Your task to perform on an android device: Clear all items from cart on bestbuy. Search for asus zenbook on bestbuy, select the first entry, and add it to the cart. Image 0: 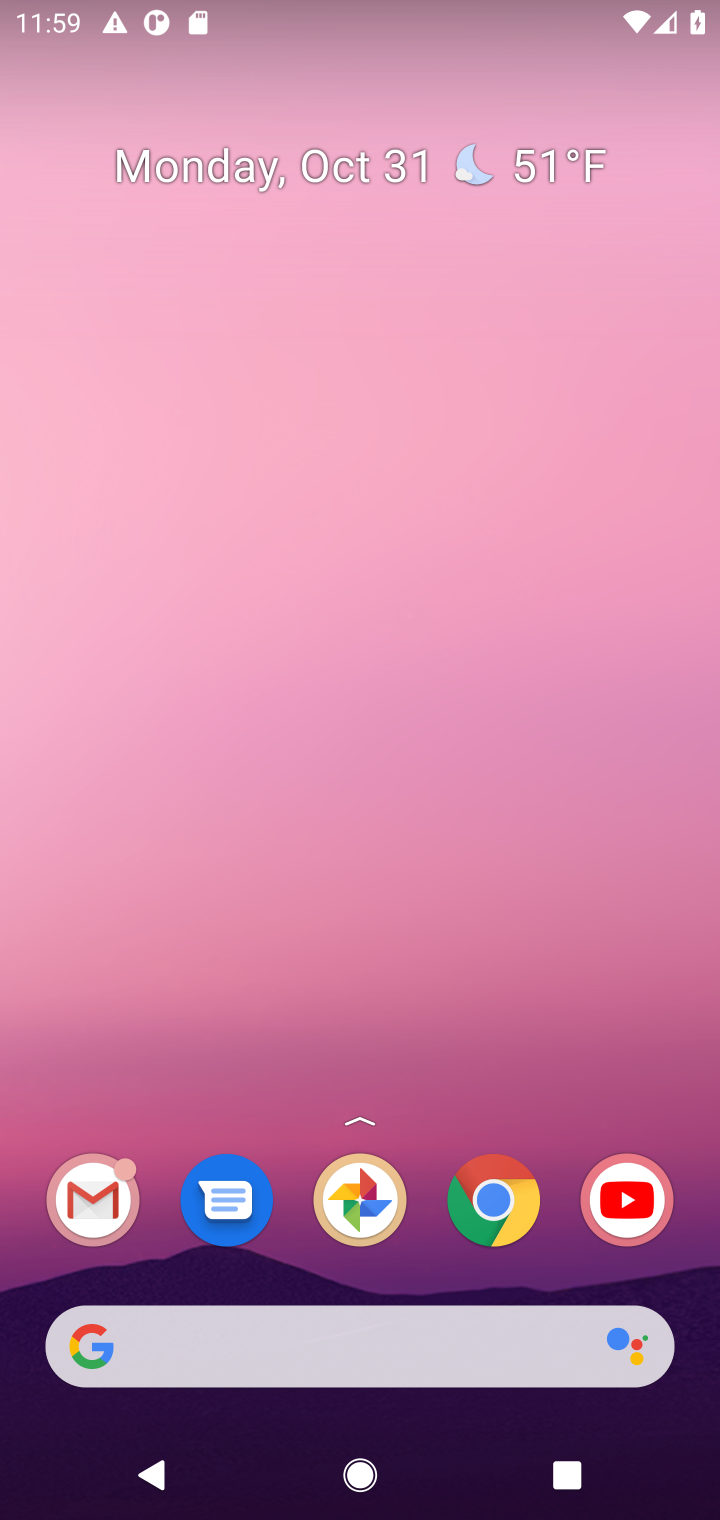
Step 0: click (488, 1218)
Your task to perform on an android device: Clear all items from cart on bestbuy. Search for asus zenbook on bestbuy, select the first entry, and add it to the cart. Image 1: 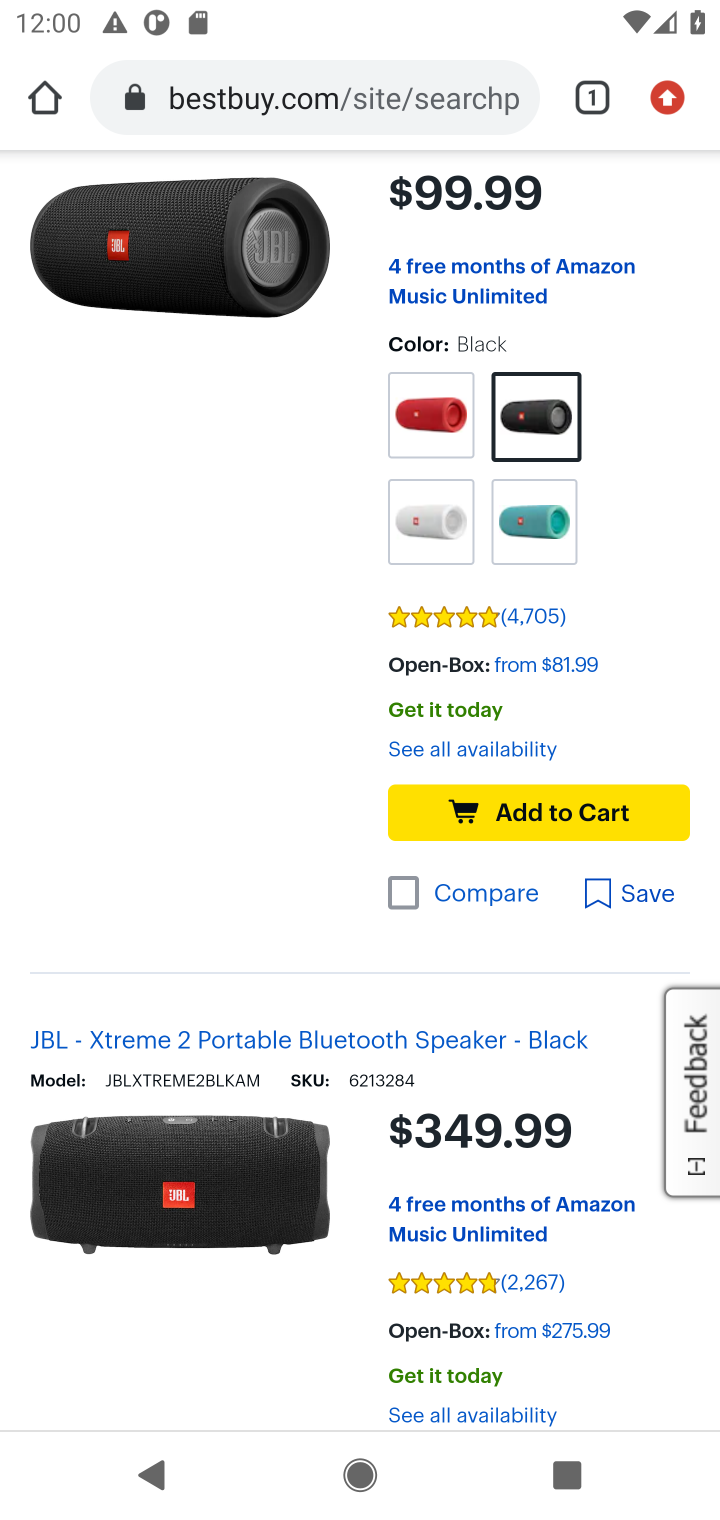
Step 1: click (312, 98)
Your task to perform on an android device: Clear all items from cart on bestbuy. Search for asus zenbook on bestbuy, select the first entry, and add it to the cart. Image 2: 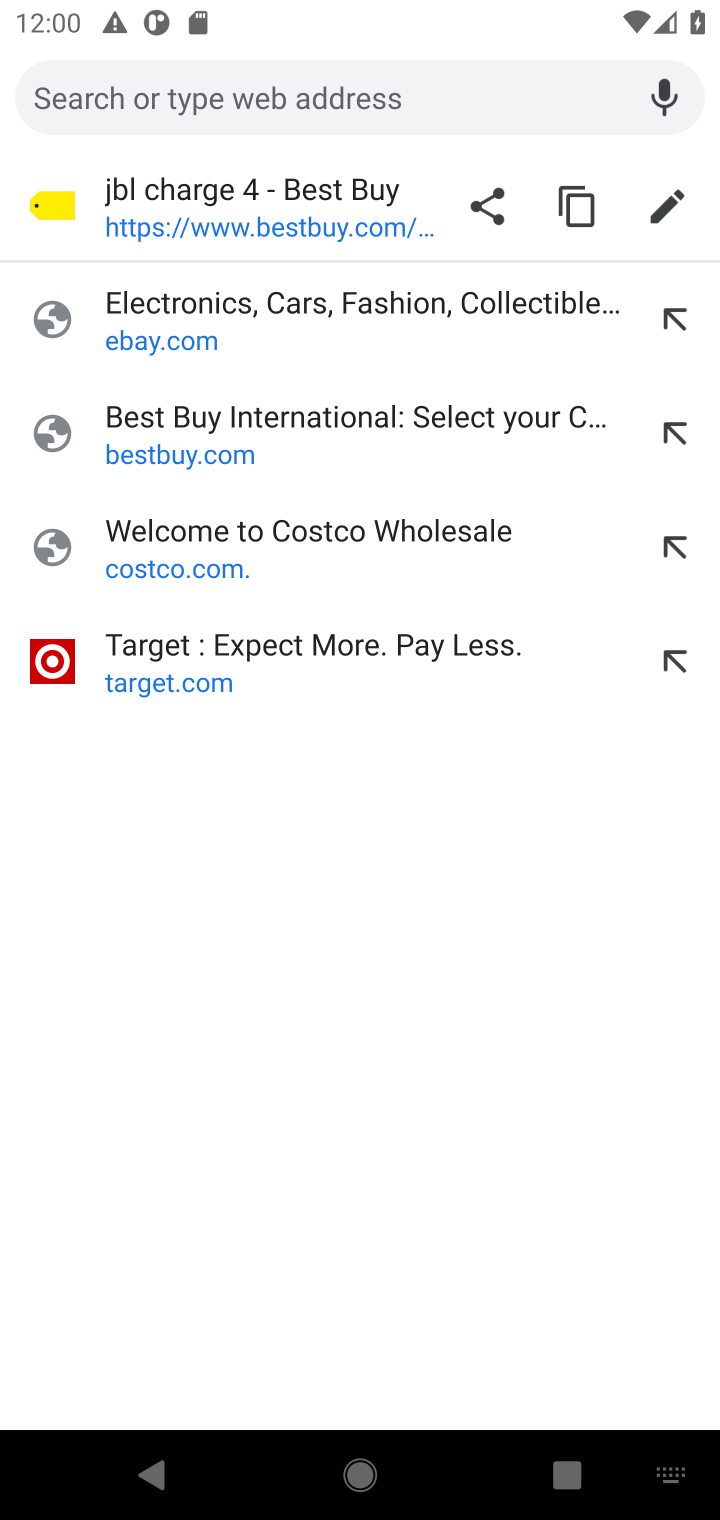
Step 2: click (157, 456)
Your task to perform on an android device: Clear all items from cart on bestbuy. Search for asus zenbook on bestbuy, select the first entry, and add it to the cart. Image 3: 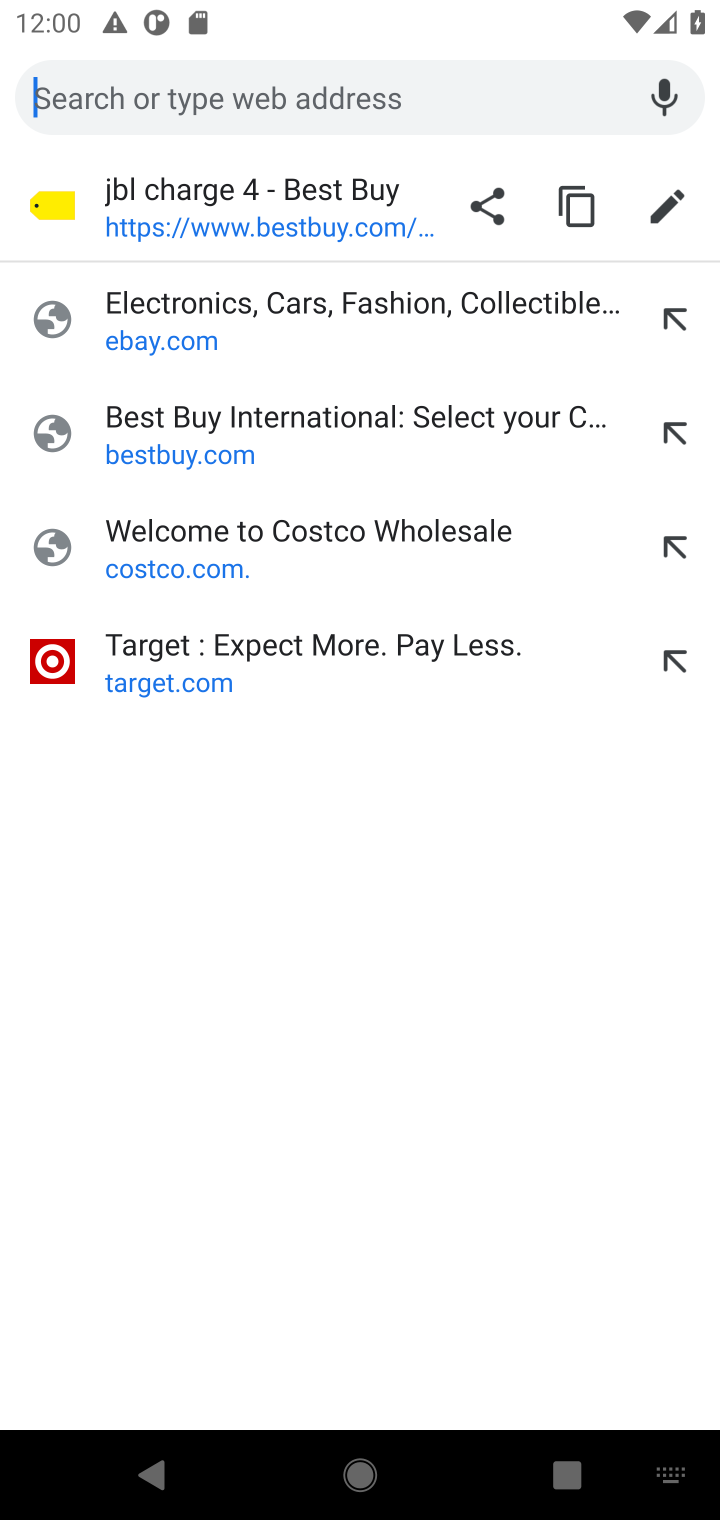
Step 3: click (143, 425)
Your task to perform on an android device: Clear all items from cart on bestbuy. Search for asus zenbook on bestbuy, select the first entry, and add it to the cart. Image 4: 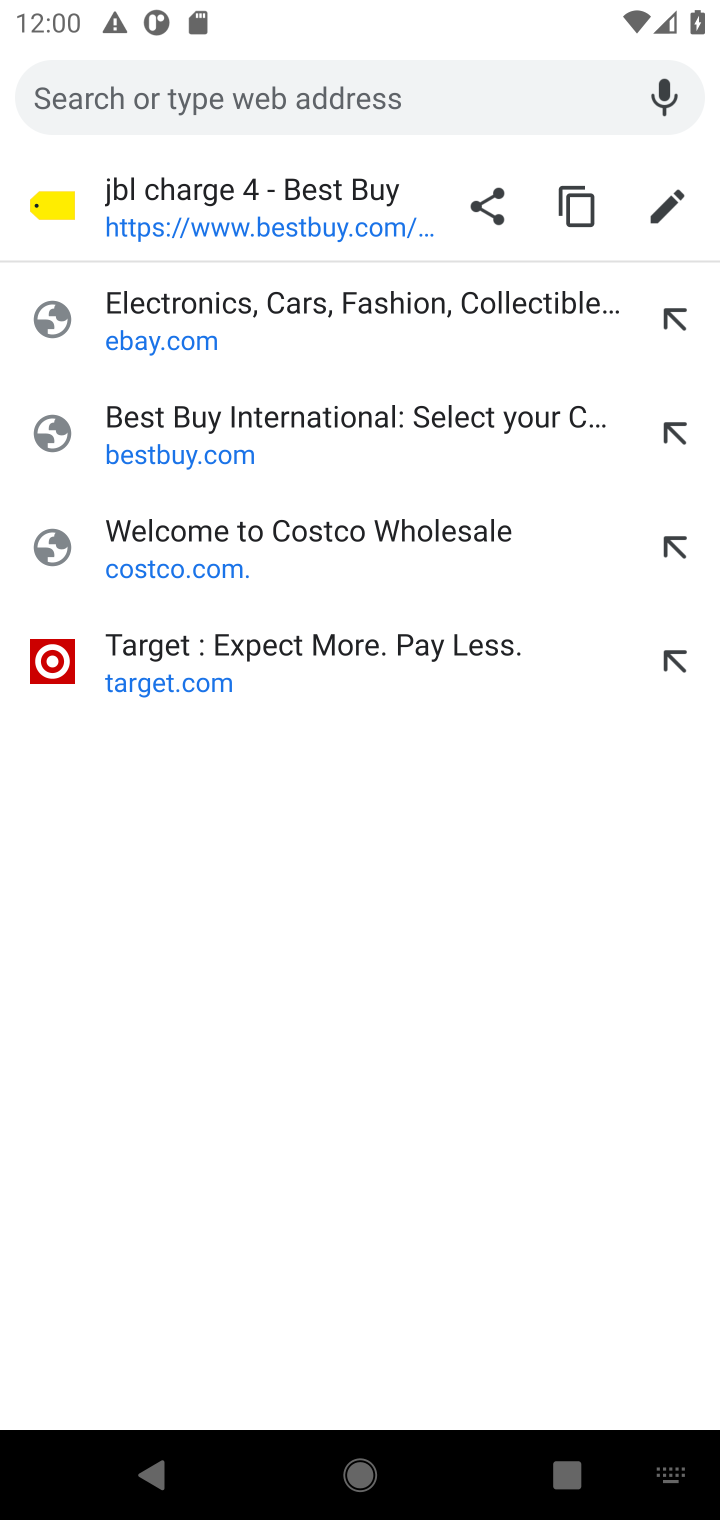
Step 4: click (143, 423)
Your task to perform on an android device: Clear all items from cart on bestbuy. Search for asus zenbook on bestbuy, select the first entry, and add it to the cart. Image 5: 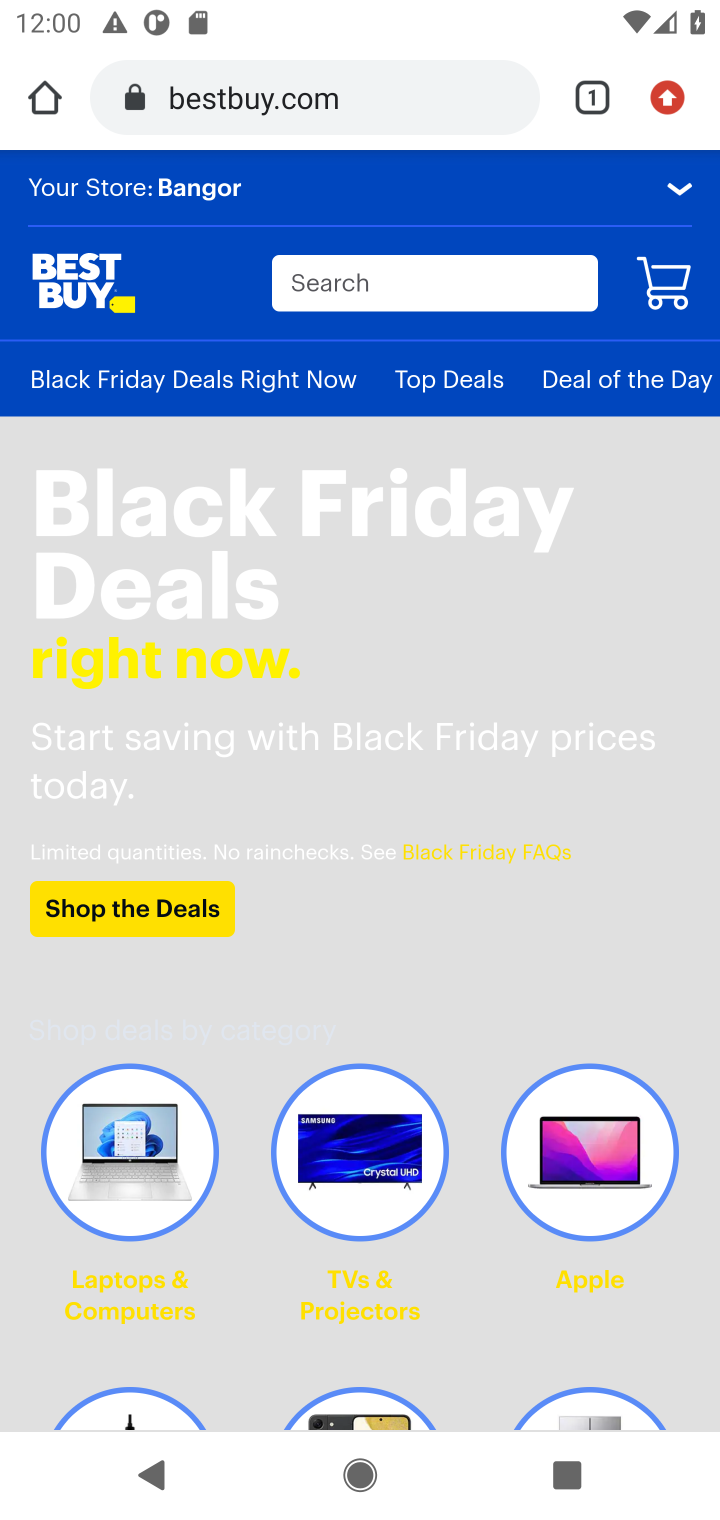
Step 5: click (646, 293)
Your task to perform on an android device: Clear all items from cart on bestbuy. Search for asus zenbook on bestbuy, select the first entry, and add it to the cart. Image 6: 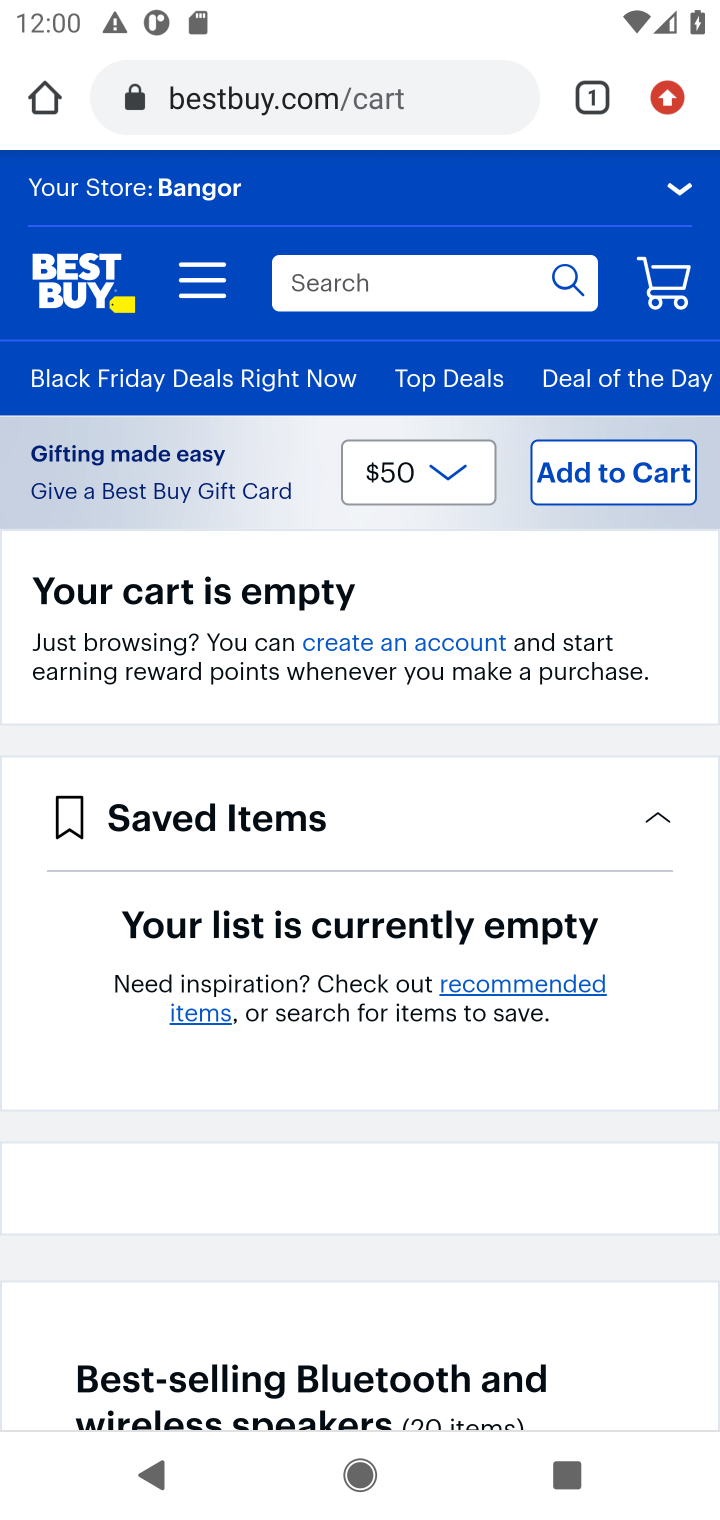
Step 6: click (373, 279)
Your task to perform on an android device: Clear all items from cart on bestbuy. Search for asus zenbook on bestbuy, select the first entry, and add it to the cart. Image 7: 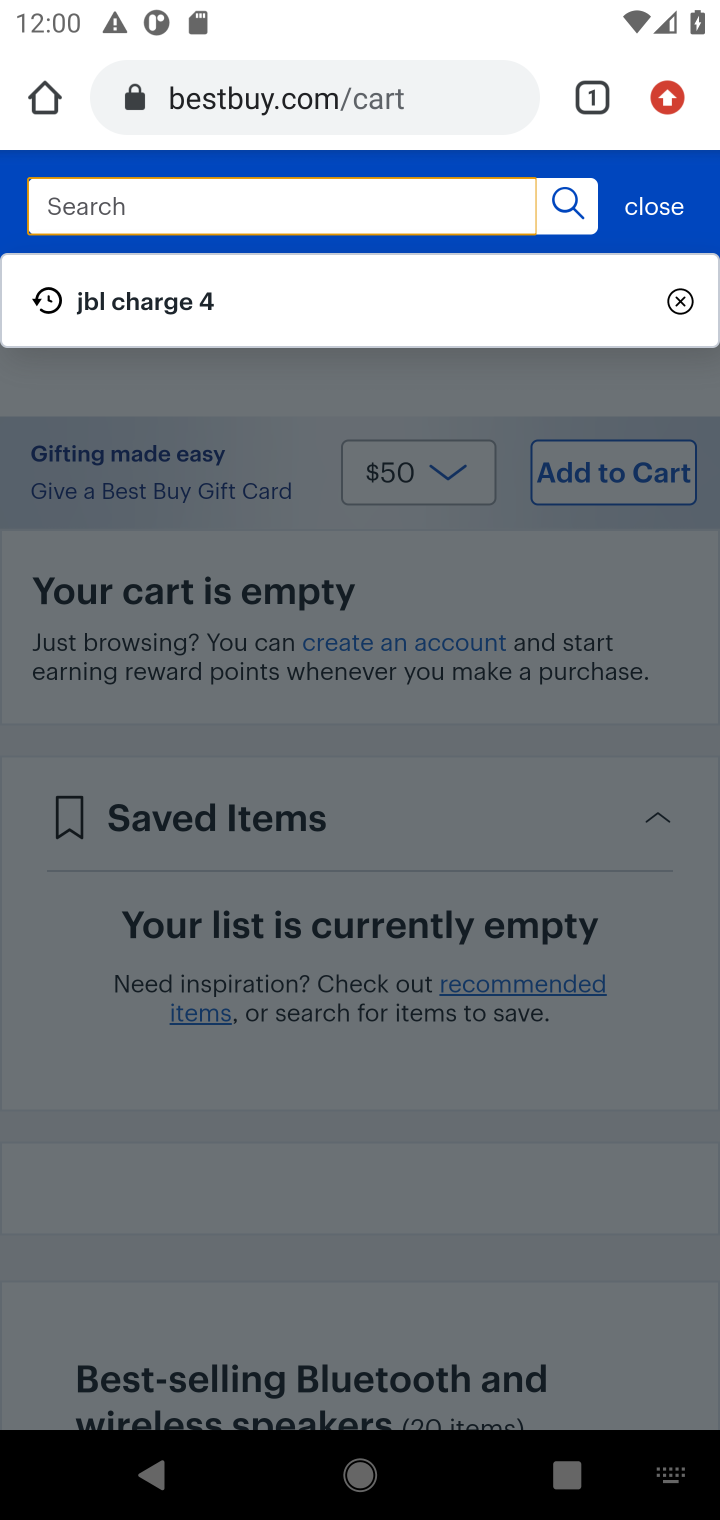
Step 7: type "asus zenbook"
Your task to perform on an android device: Clear all items from cart on bestbuy. Search for asus zenbook on bestbuy, select the first entry, and add it to the cart. Image 8: 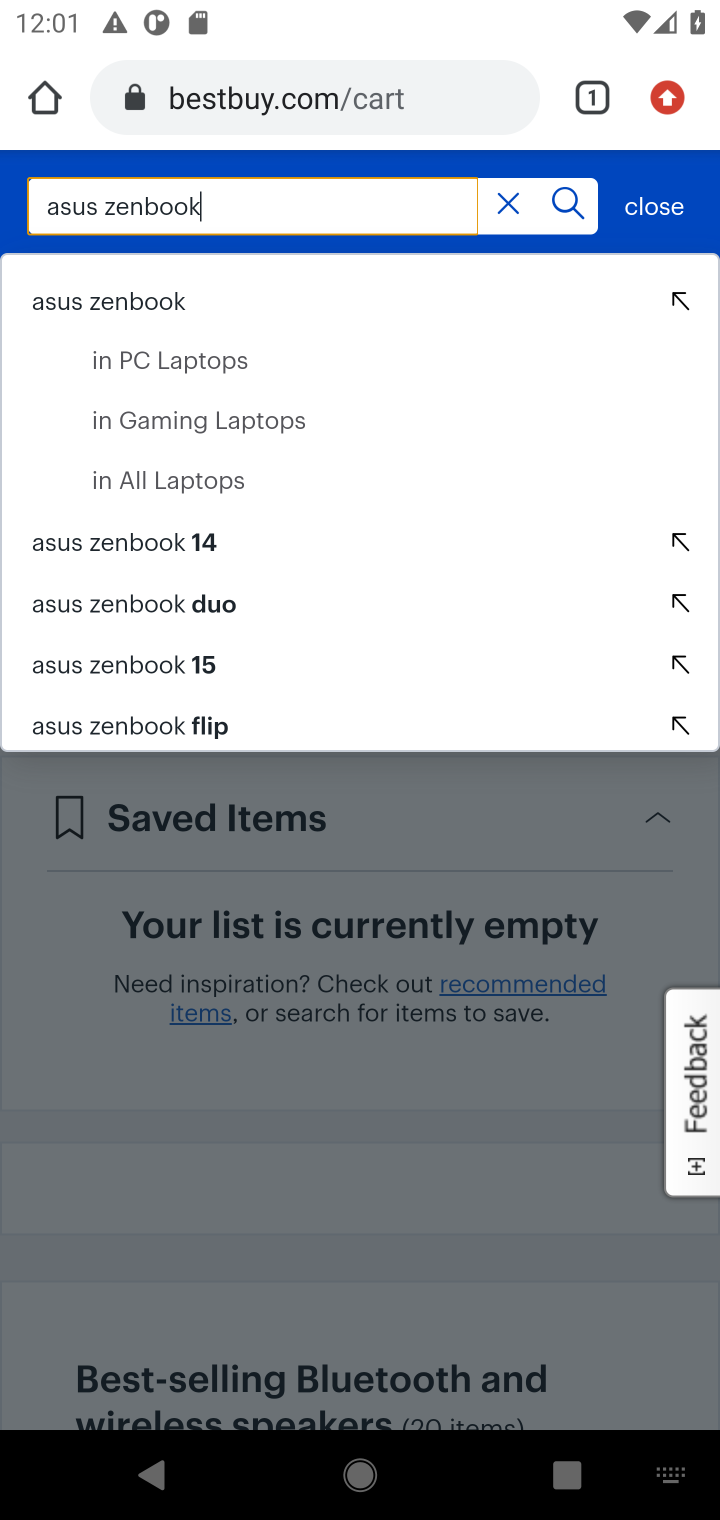
Step 8: click (54, 315)
Your task to perform on an android device: Clear all items from cart on bestbuy. Search for asus zenbook on bestbuy, select the first entry, and add it to the cart. Image 9: 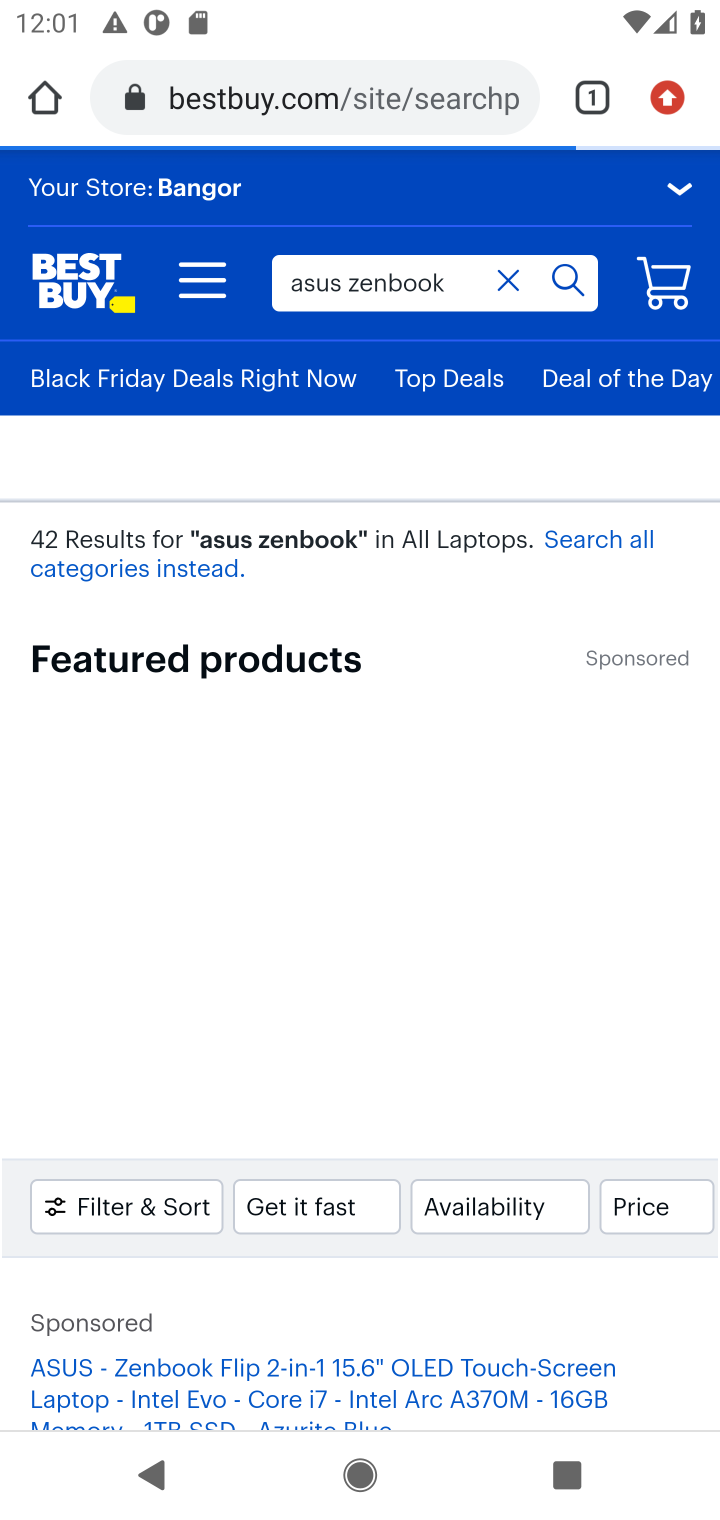
Step 9: drag from (277, 1084) to (277, 572)
Your task to perform on an android device: Clear all items from cart on bestbuy. Search for asus zenbook on bestbuy, select the first entry, and add it to the cart. Image 10: 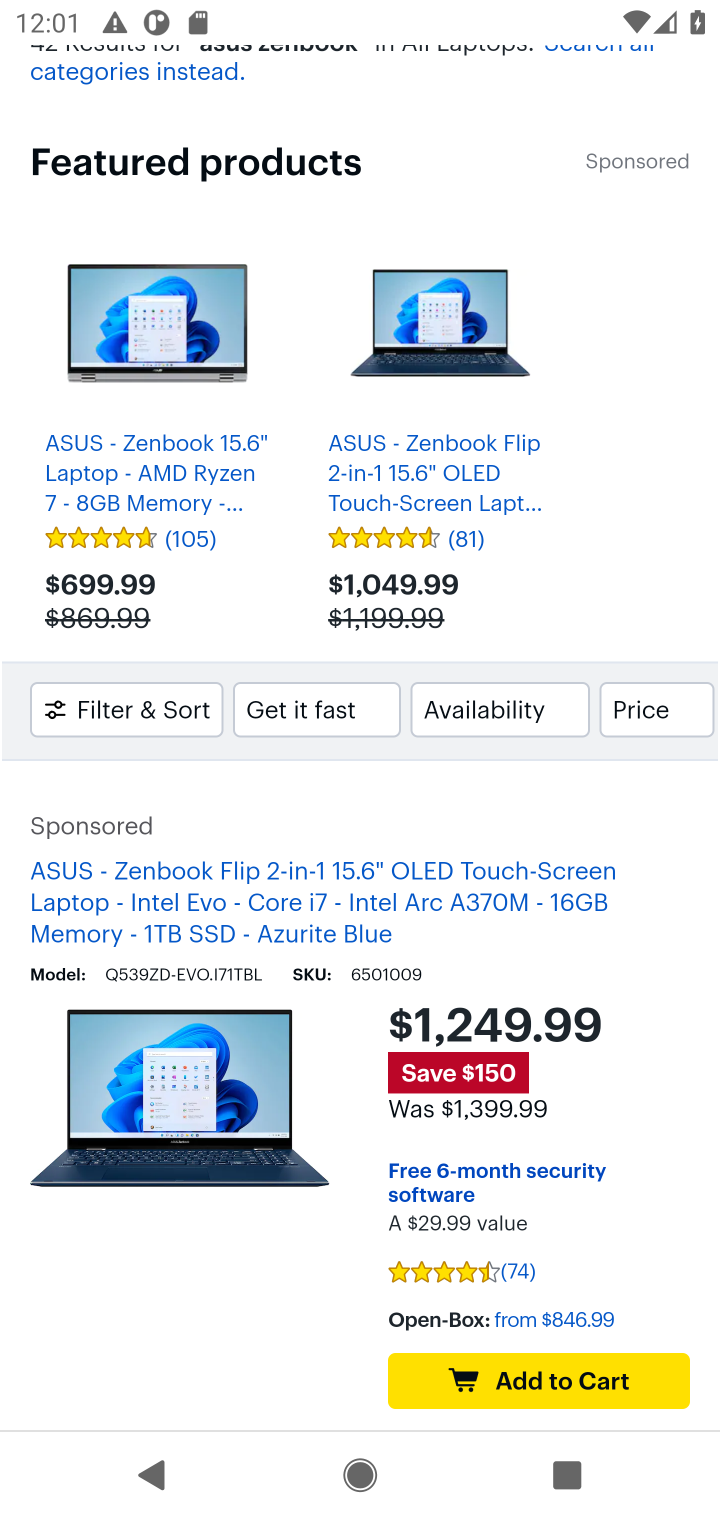
Step 10: drag from (287, 1234) to (293, 1002)
Your task to perform on an android device: Clear all items from cart on bestbuy. Search for asus zenbook on bestbuy, select the first entry, and add it to the cart. Image 11: 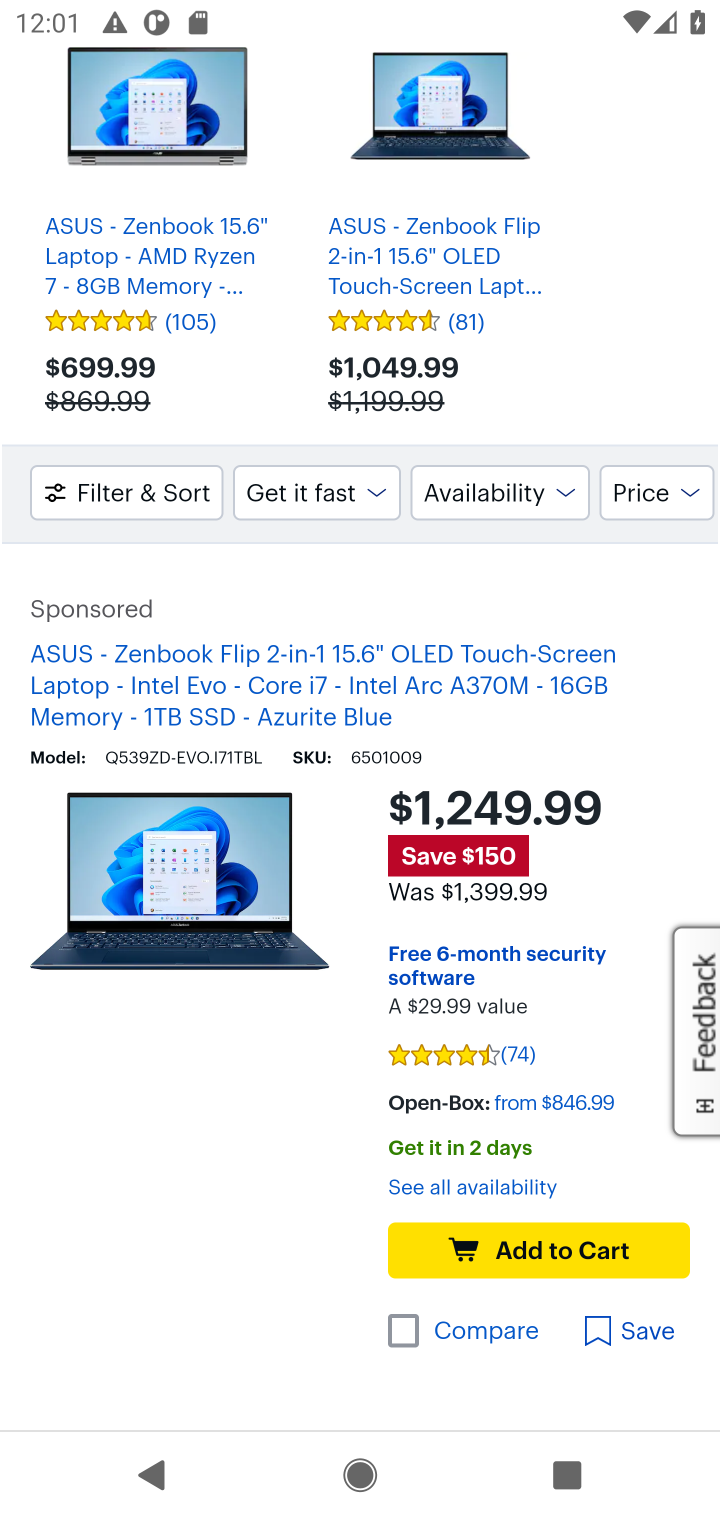
Step 11: click (193, 966)
Your task to perform on an android device: Clear all items from cart on bestbuy. Search for asus zenbook on bestbuy, select the first entry, and add it to the cart. Image 12: 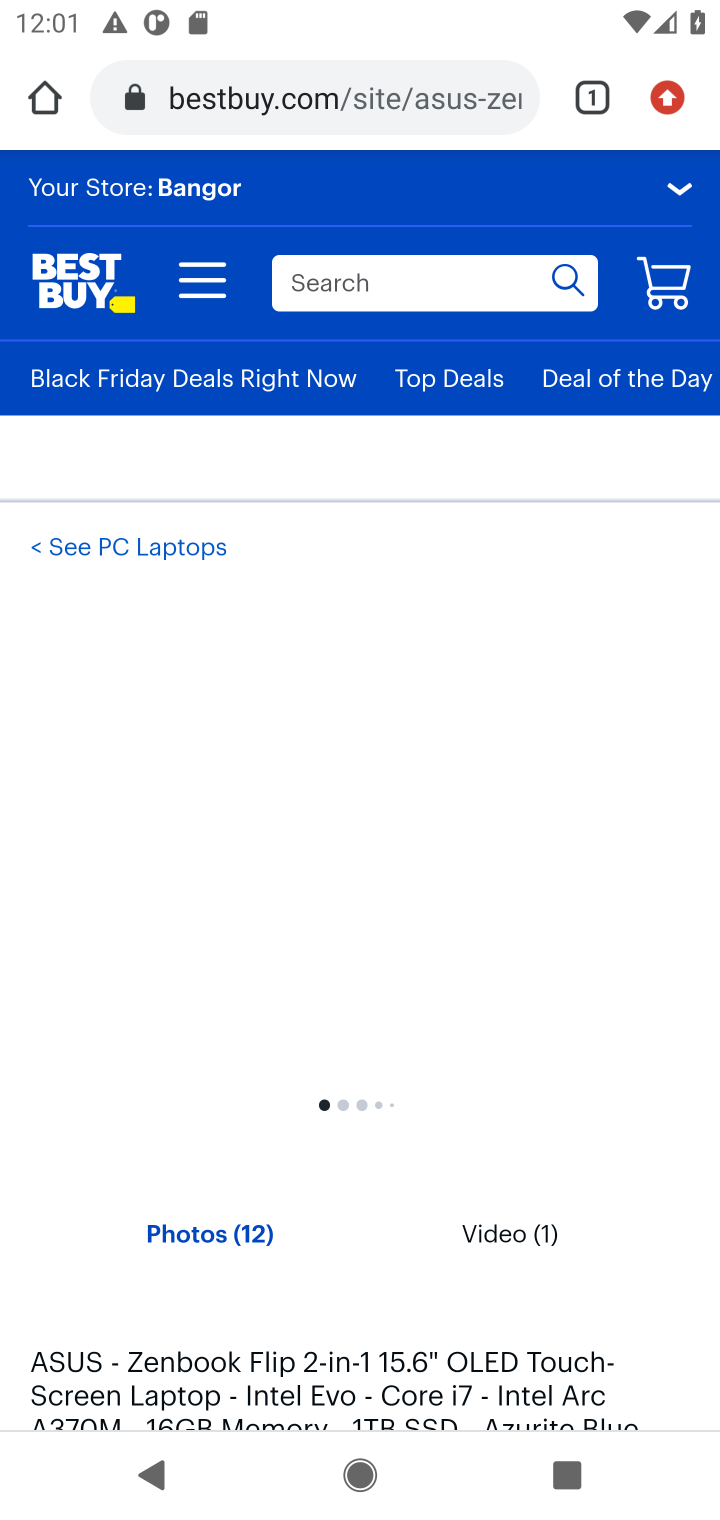
Step 12: drag from (315, 1246) to (378, 510)
Your task to perform on an android device: Clear all items from cart on bestbuy. Search for asus zenbook on bestbuy, select the first entry, and add it to the cart. Image 13: 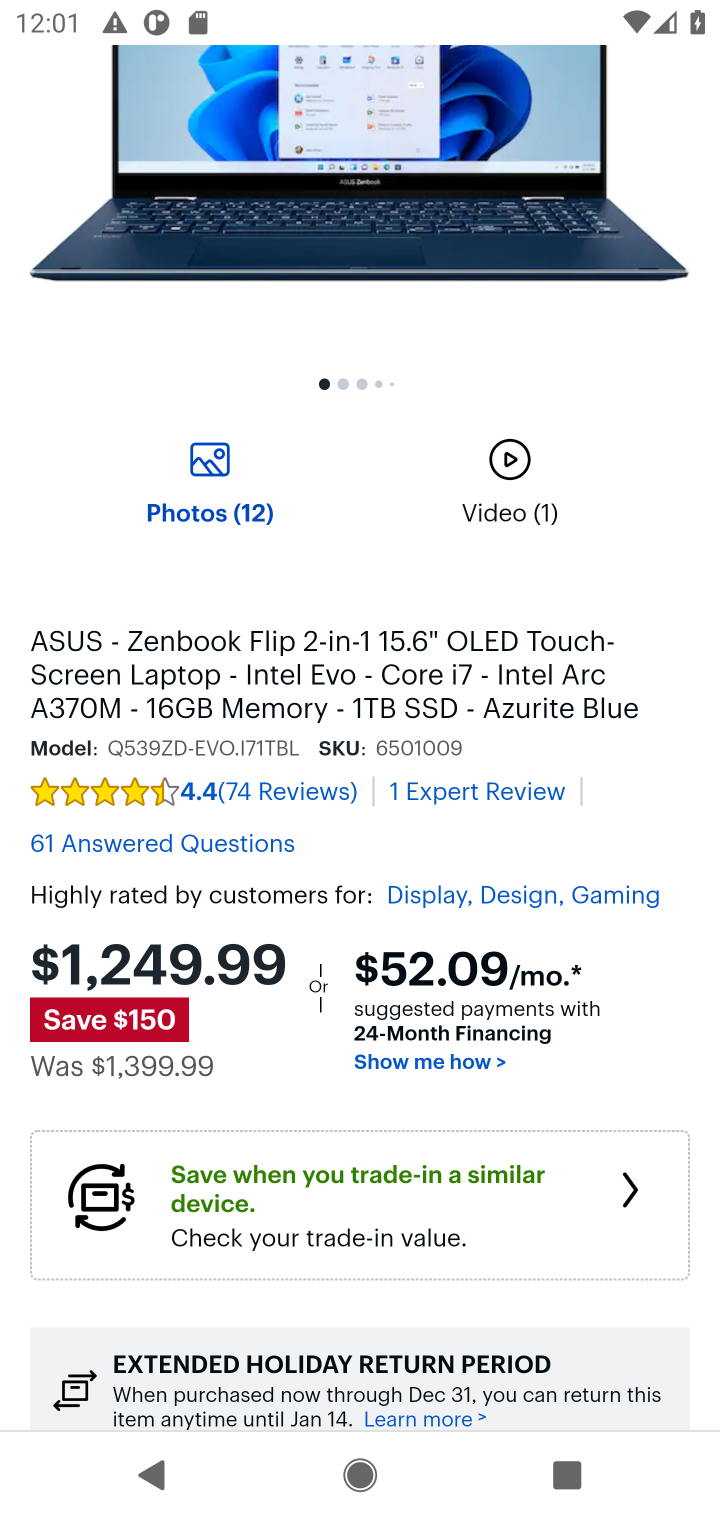
Step 13: drag from (352, 1069) to (370, 594)
Your task to perform on an android device: Clear all items from cart on bestbuy. Search for asus zenbook on bestbuy, select the first entry, and add it to the cart. Image 14: 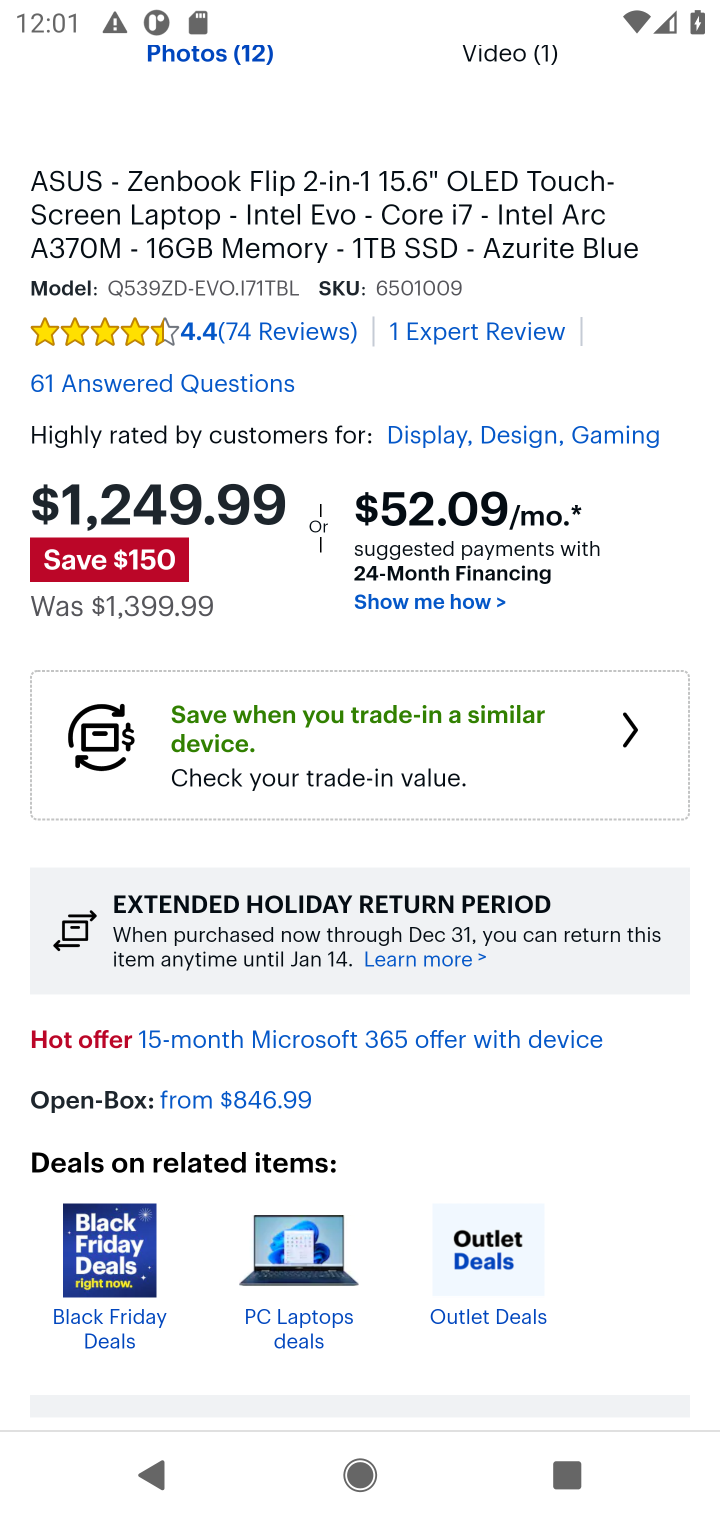
Step 14: drag from (345, 975) to (328, 469)
Your task to perform on an android device: Clear all items from cart on bestbuy. Search for asus zenbook on bestbuy, select the first entry, and add it to the cart. Image 15: 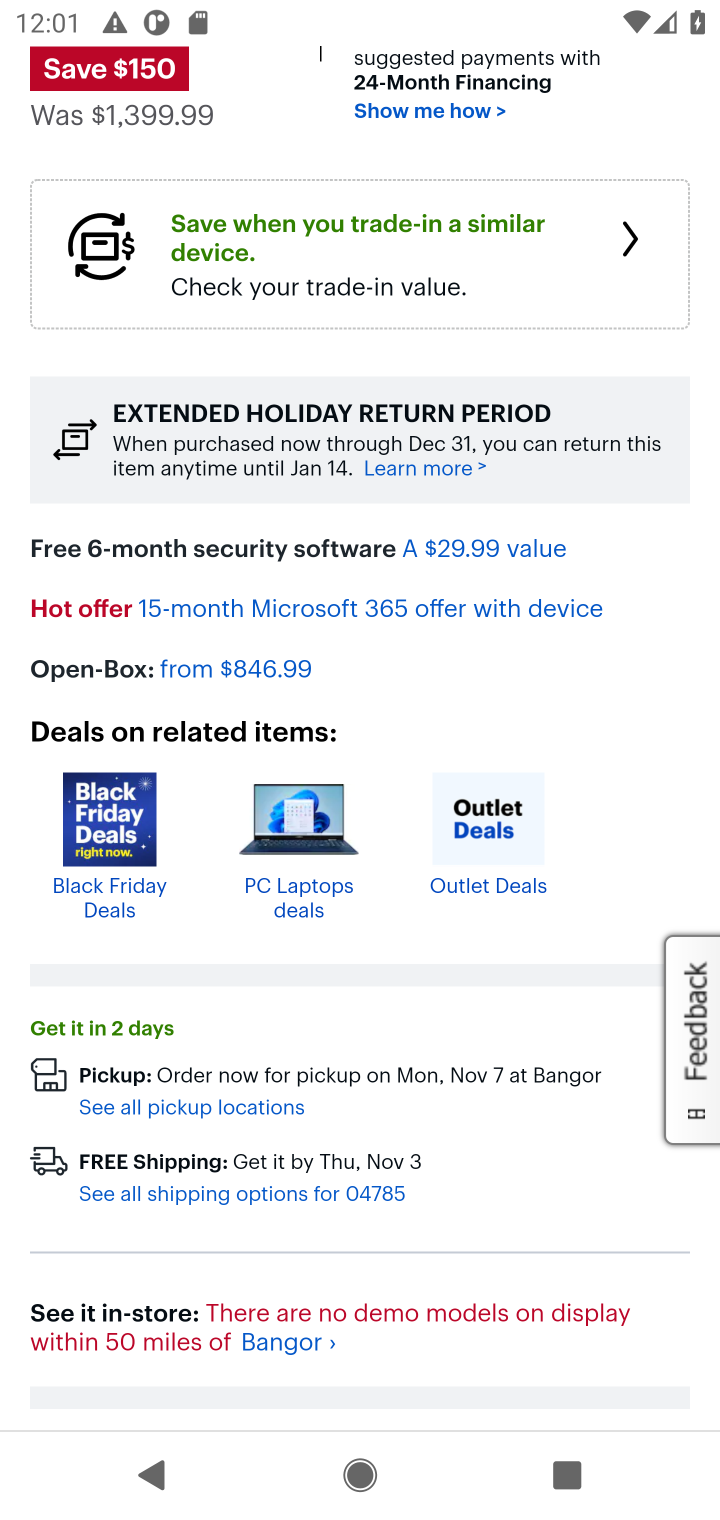
Step 15: drag from (306, 1053) to (276, 346)
Your task to perform on an android device: Clear all items from cart on bestbuy. Search for asus zenbook on bestbuy, select the first entry, and add it to the cart. Image 16: 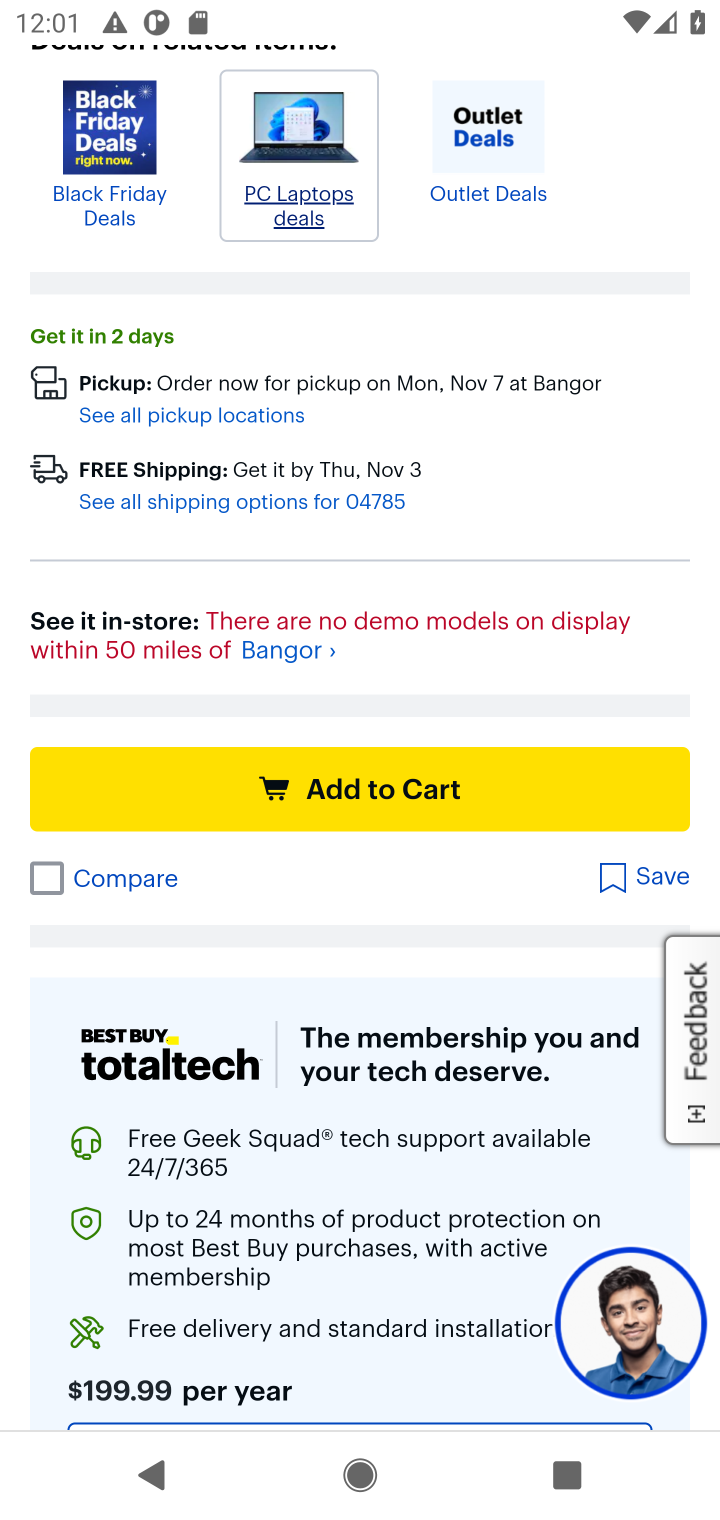
Step 16: click (312, 783)
Your task to perform on an android device: Clear all items from cart on bestbuy. Search for asus zenbook on bestbuy, select the first entry, and add it to the cart. Image 17: 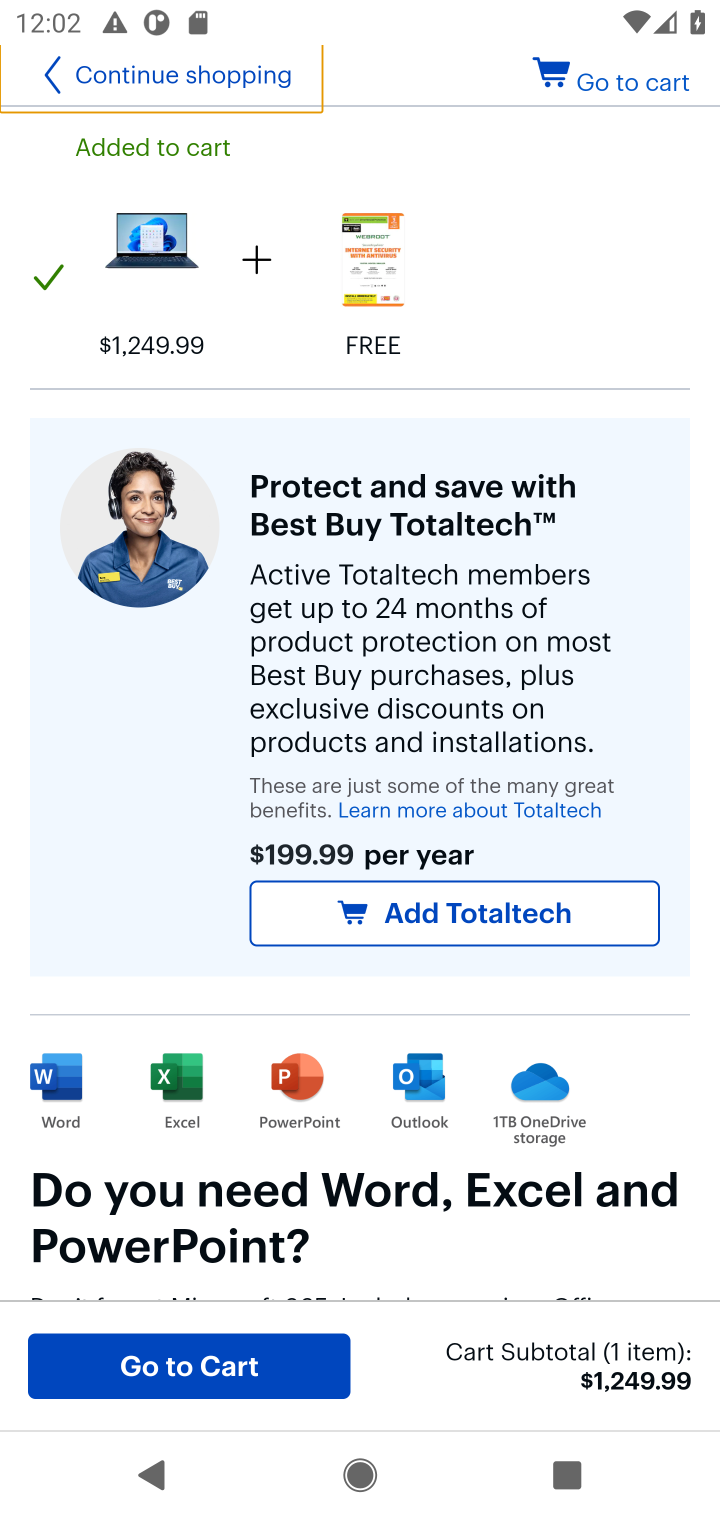
Step 17: task complete